Your task to perform on an android device: toggle improve location accuracy Image 0: 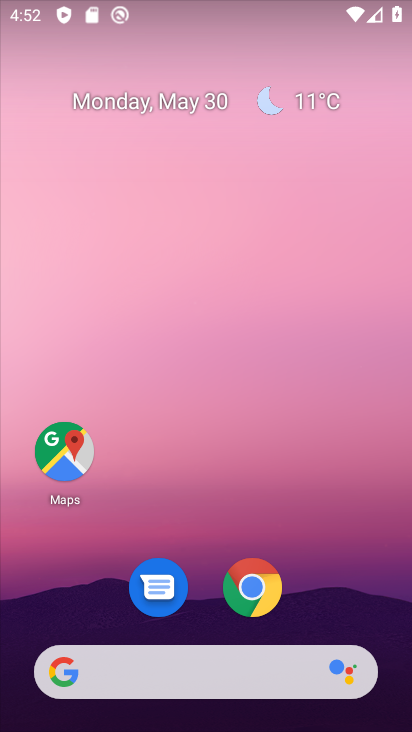
Step 0: drag from (310, 496) to (213, 4)
Your task to perform on an android device: toggle improve location accuracy Image 1: 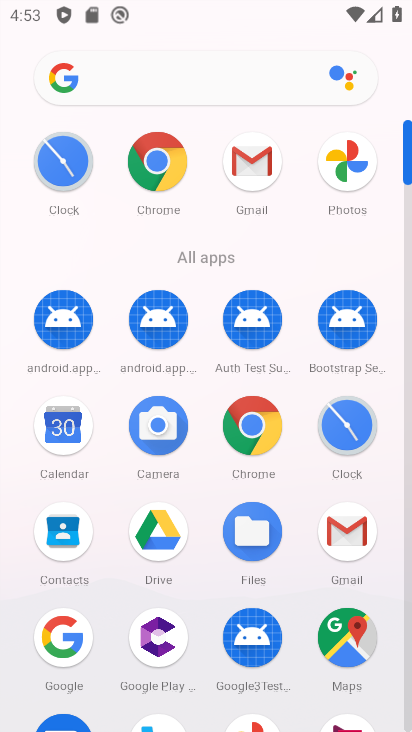
Step 1: drag from (14, 489) to (13, 255)
Your task to perform on an android device: toggle improve location accuracy Image 2: 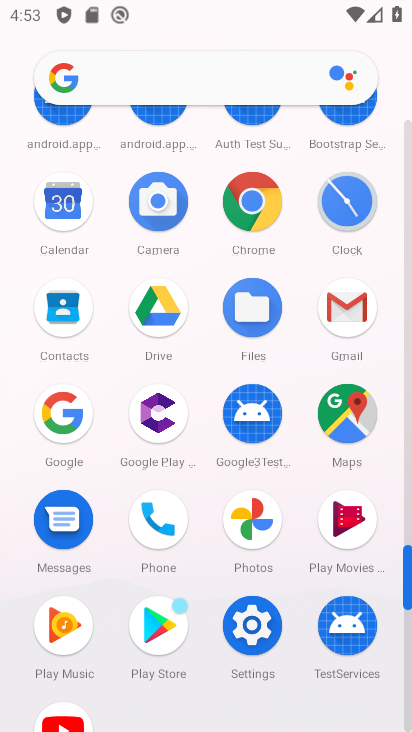
Step 2: click (253, 623)
Your task to perform on an android device: toggle improve location accuracy Image 3: 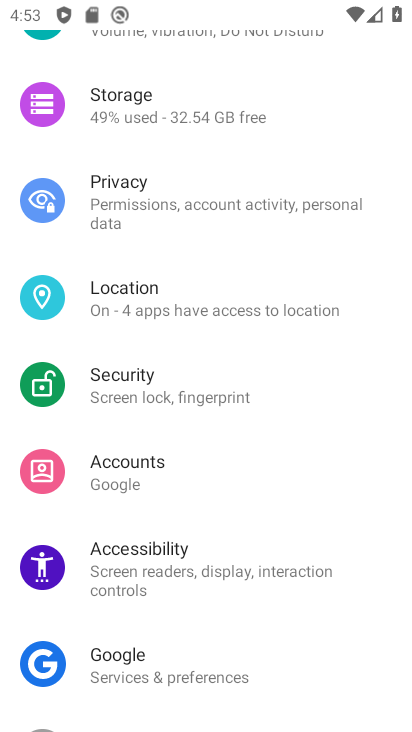
Step 3: click (181, 292)
Your task to perform on an android device: toggle improve location accuracy Image 4: 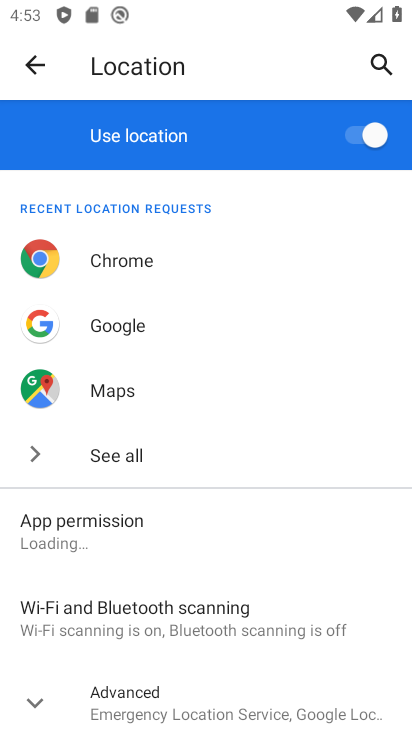
Step 4: click (44, 695)
Your task to perform on an android device: toggle improve location accuracy Image 5: 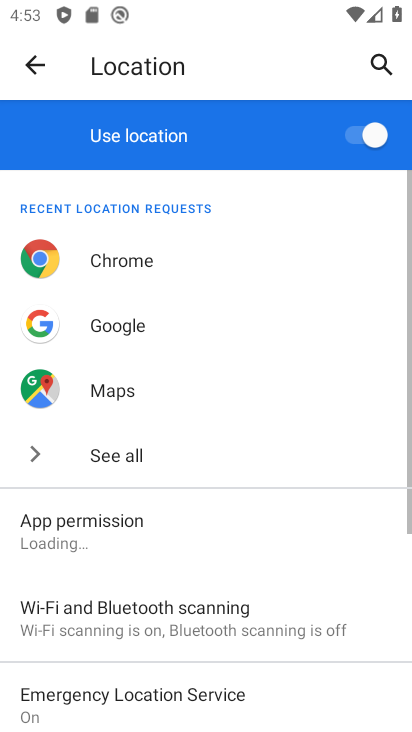
Step 5: drag from (279, 627) to (271, 234)
Your task to perform on an android device: toggle improve location accuracy Image 6: 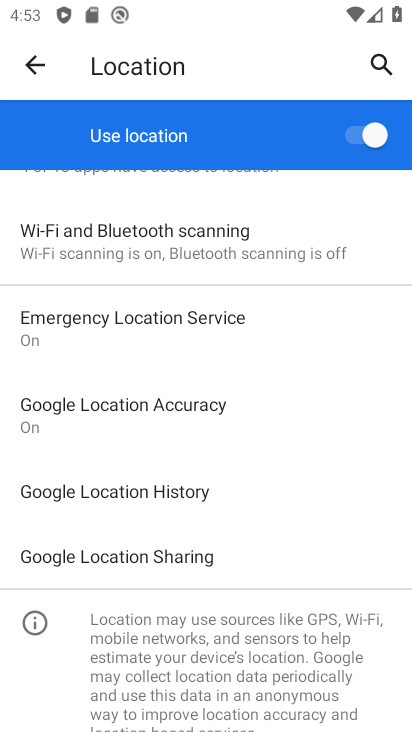
Step 6: click (166, 406)
Your task to perform on an android device: toggle improve location accuracy Image 7: 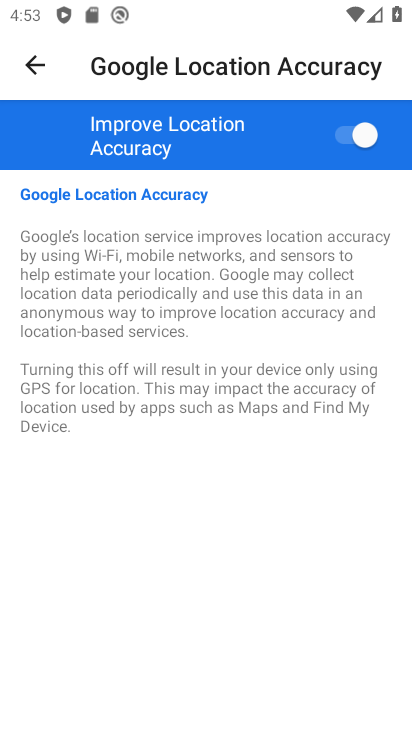
Step 7: click (360, 127)
Your task to perform on an android device: toggle improve location accuracy Image 8: 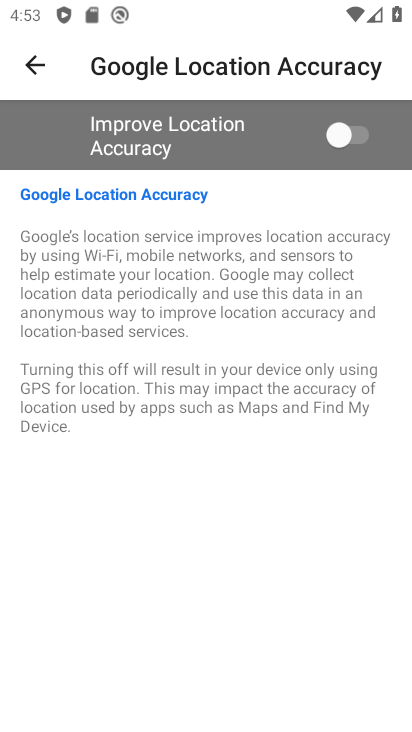
Step 8: task complete